Your task to perform on an android device: Open Yahoo.com Image 0: 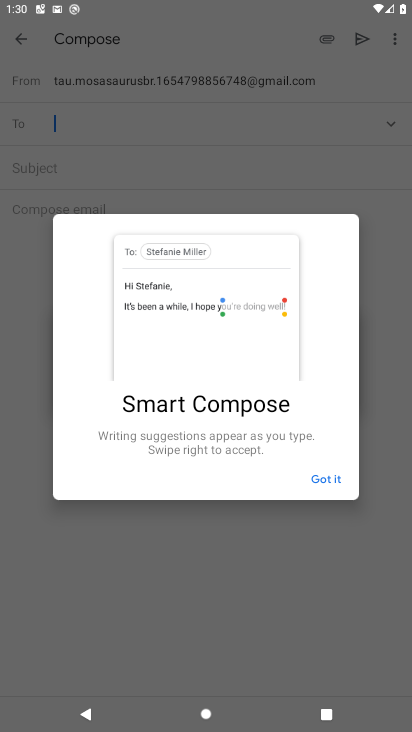
Step 0: press home button
Your task to perform on an android device: Open Yahoo.com Image 1: 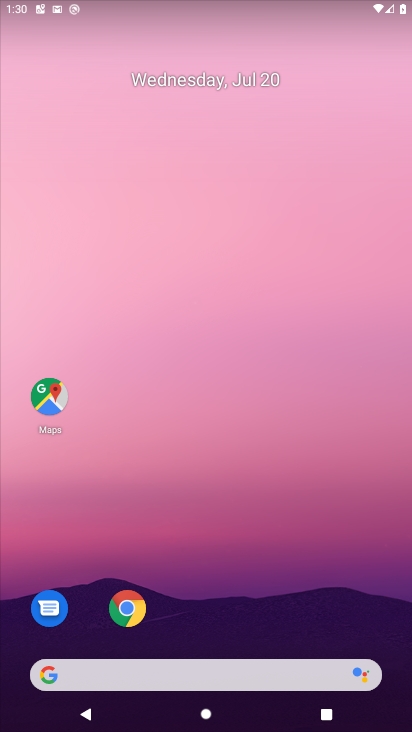
Step 1: drag from (208, 655) to (200, 133)
Your task to perform on an android device: Open Yahoo.com Image 2: 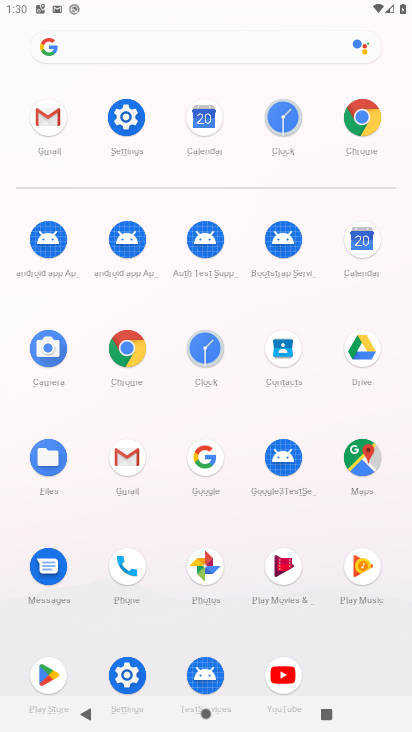
Step 2: click (357, 119)
Your task to perform on an android device: Open Yahoo.com Image 3: 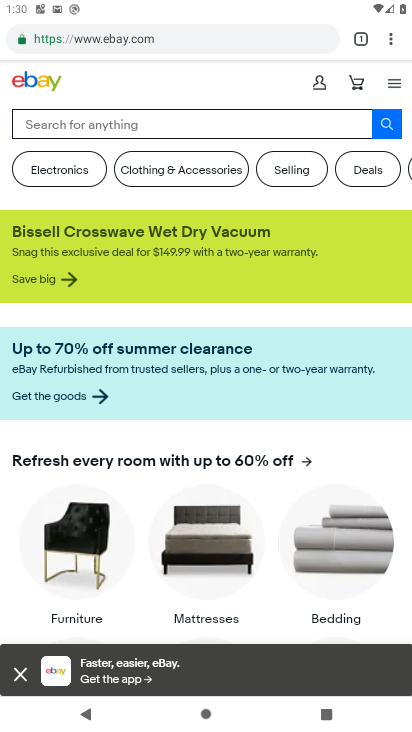
Step 3: click (364, 40)
Your task to perform on an android device: Open Yahoo.com Image 4: 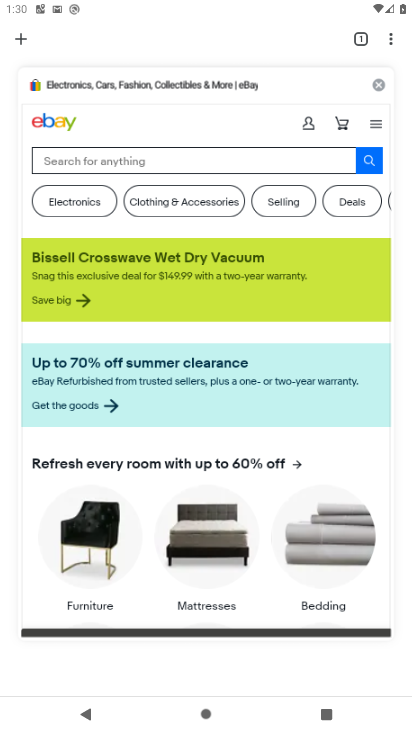
Step 4: click (369, 85)
Your task to perform on an android device: Open Yahoo.com Image 5: 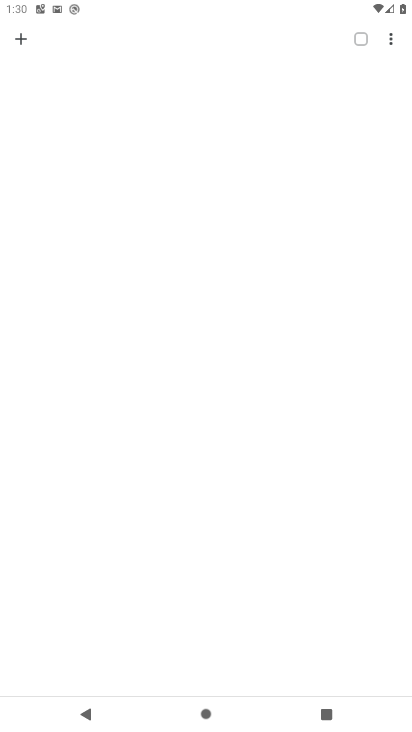
Step 5: click (26, 33)
Your task to perform on an android device: Open Yahoo.com Image 6: 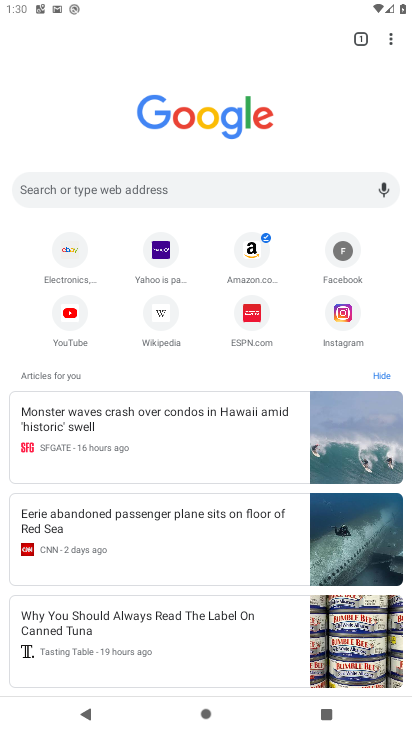
Step 6: click (162, 252)
Your task to perform on an android device: Open Yahoo.com Image 7: 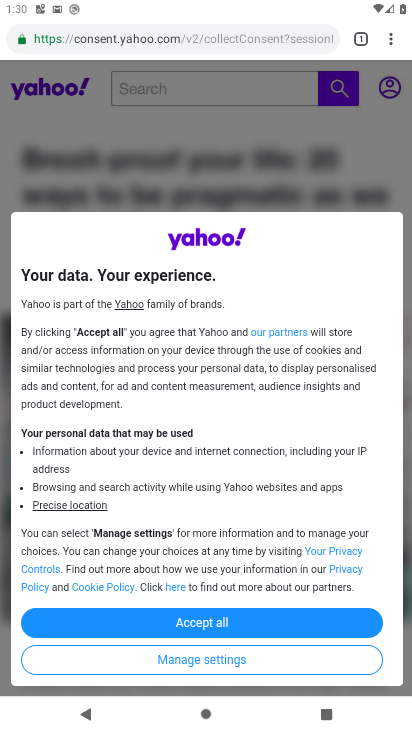
Step 7: task complete